Your task to perform on an android device: change keyboard looks Image 0: 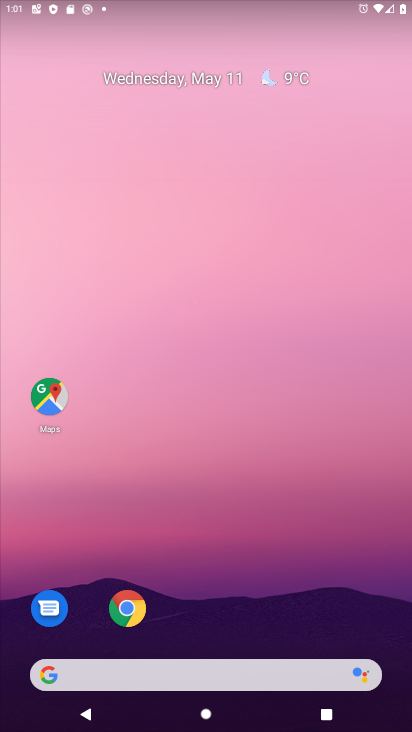
Step 0: drag from (276, 535) to (262, 221)
Your task to perform on an android device: change keyboard looks Image 1: 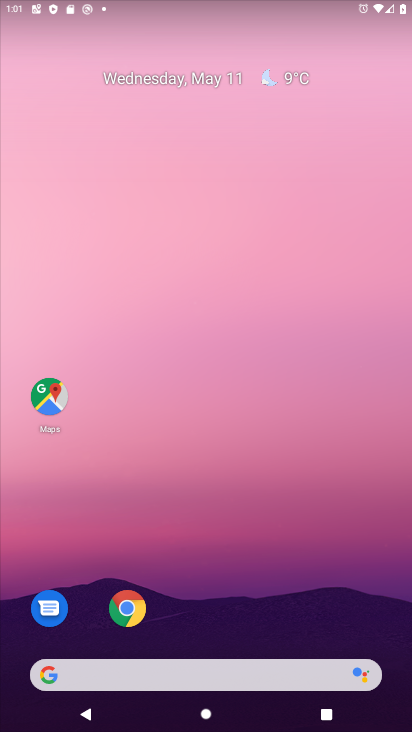
Step 1: drag from (238, 540) to (228, 129)
Your task to perform on an android device: change keyboard looks Image 2: 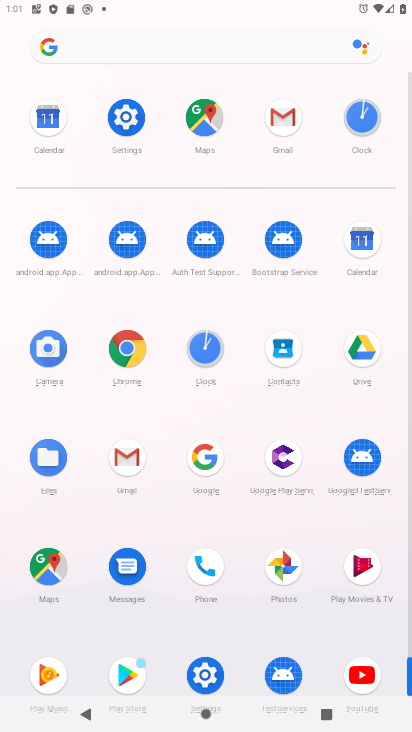
Step 2: click (132, 132)
Your task to perform on an android device: change keyboard looks Image 3: 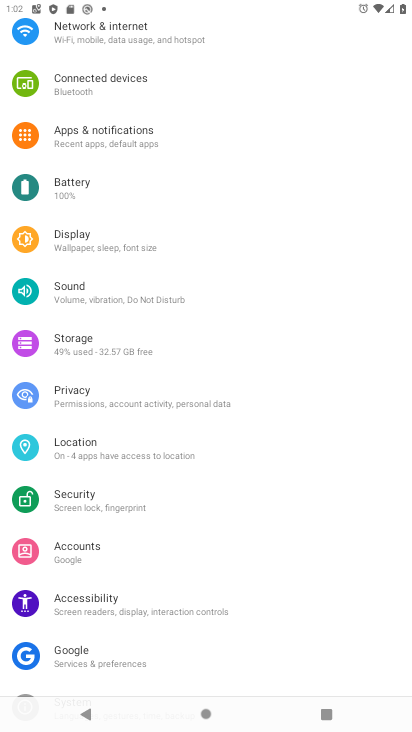
Step 3: drag from (255, 614) to (201, 326)
Your task to perform on an android device: change keyboard looks Image 4: 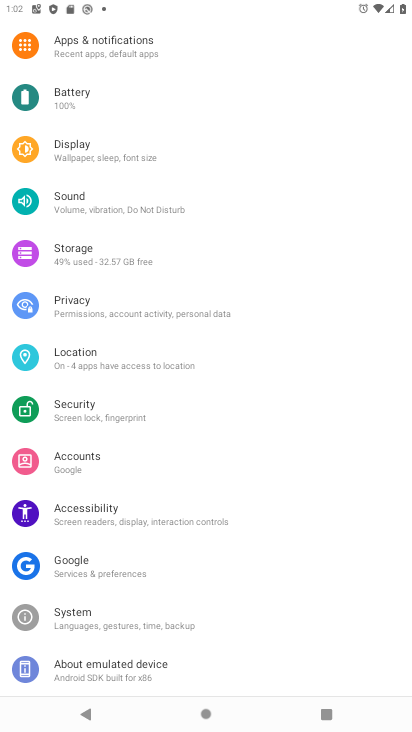
Step 4: click (149, 626)
Your task to perform on an android device: change keyboard looks Image 5: 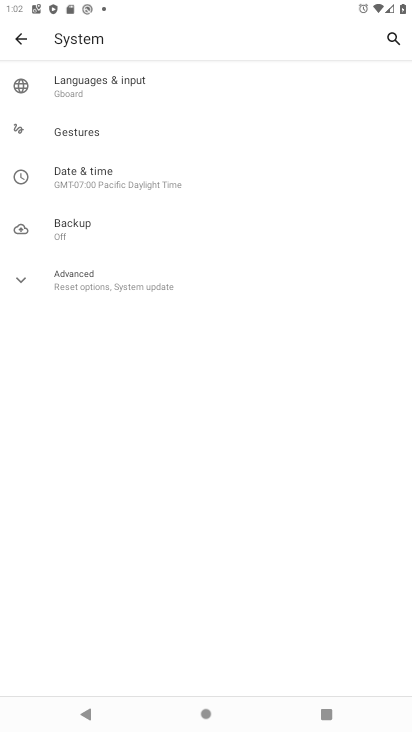
Step 5: click (149, 626)
Your task to perform on an android device: change keyboard looks Image 6: 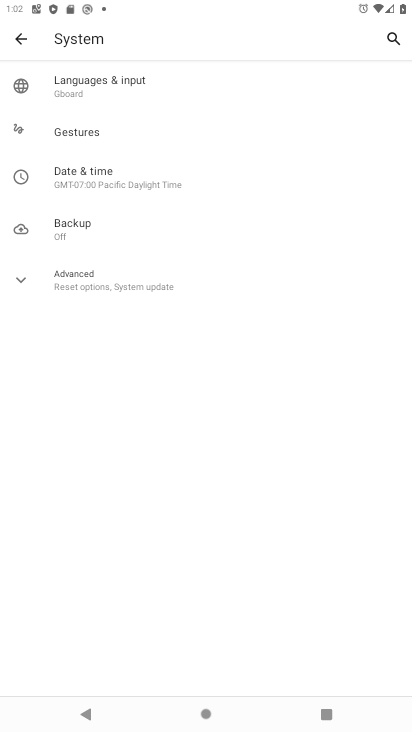
Step 6: click (133, 80)
Your task to perform on an android device: change keyboard looks Image 7: 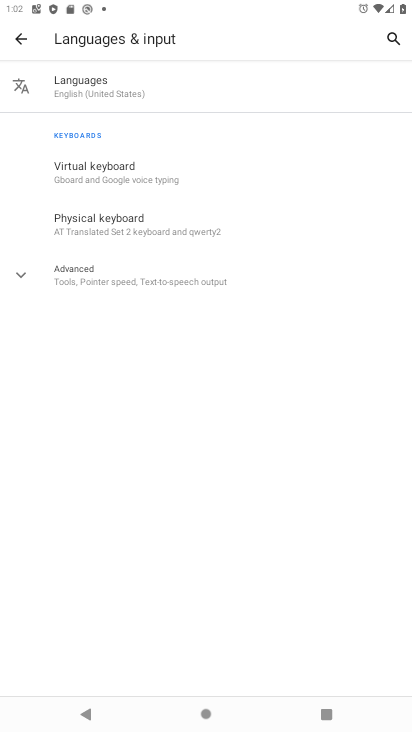
Step 7: click (155, 164)
Your task to perform on an android device: change keyboard looks Image 8: 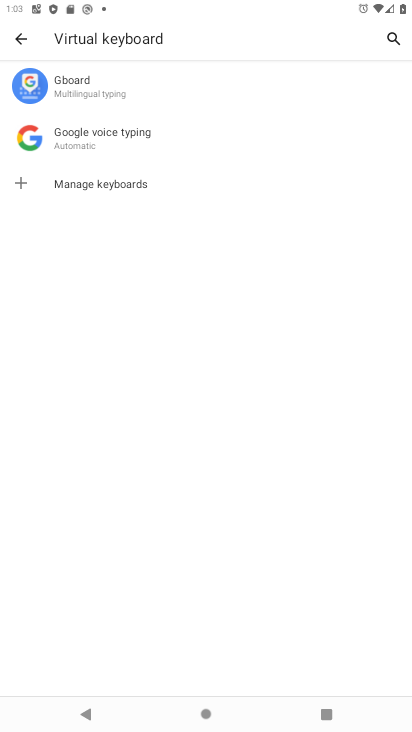
Step 8: click (156, 81)
Your task to perform on an android device: change keyboard looks Image 9: 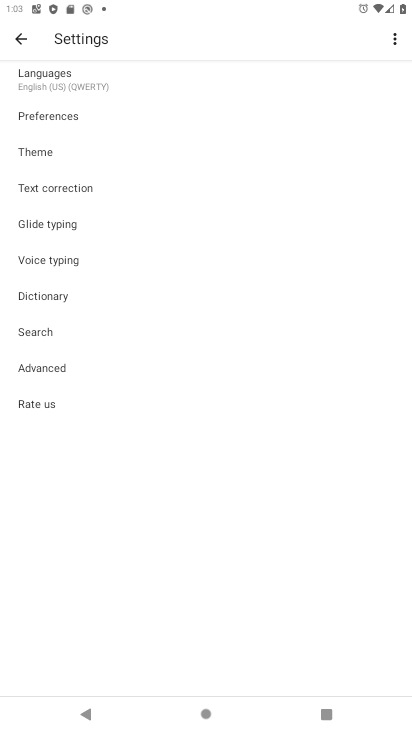
Step 9: click (52, 149)
Your task to perform on an android device: change keyboard looks Image 10: 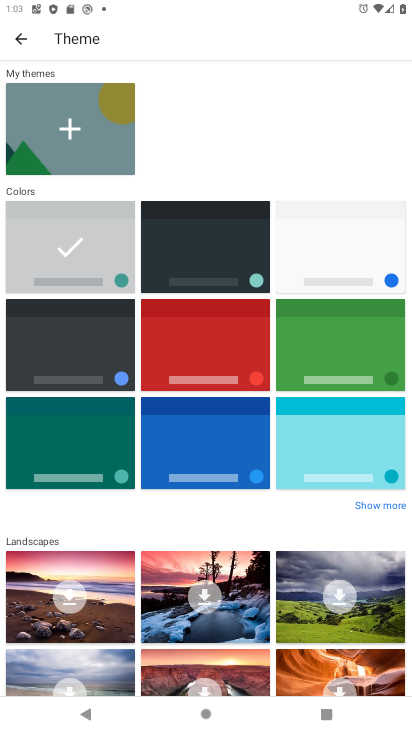
Step 10: click (336, 430)
Your task to perform on an android device: change keyboard looks Image 11: 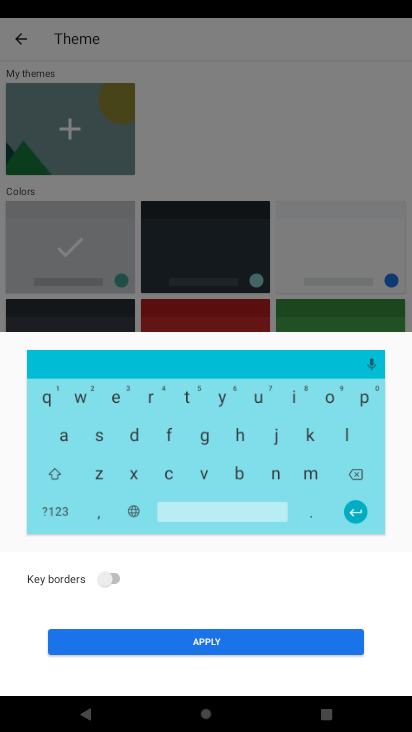
Step 11: click (236, 639)
Your task to perform on an android device: change keyboard looks Image 12: 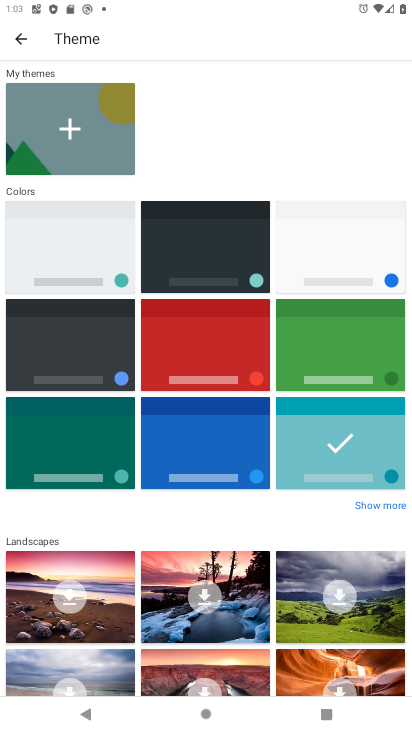
Step 12: task complete